Your task to perform on an android device: move an email to a new category in the gmail app Image 0: 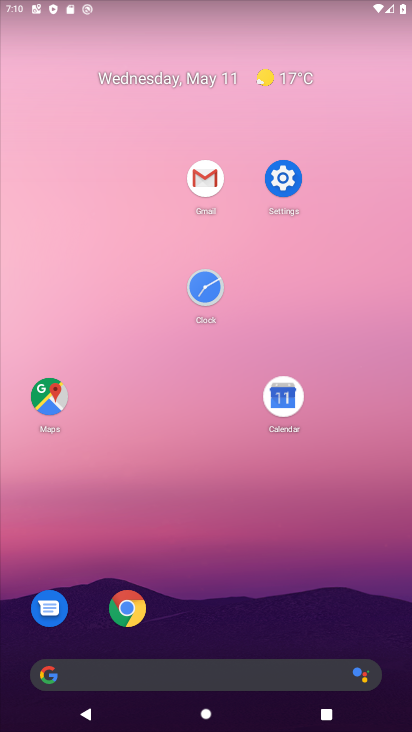
Step 0: click (193, 179)
Your task to perform on an android device: move an email to a new category in the gmail app Image 1: 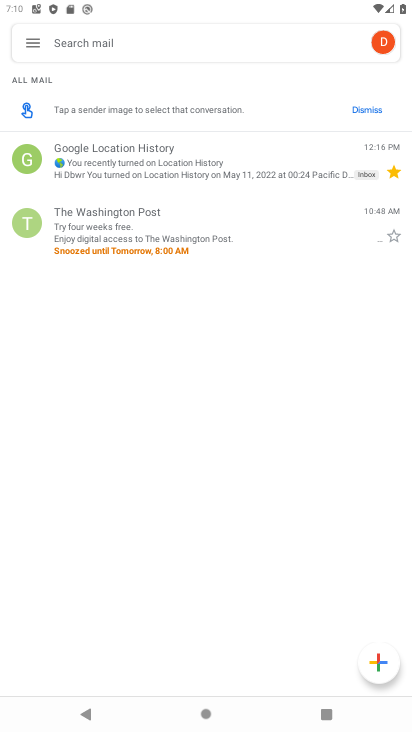
Step 1: click (259, 222)
Your task to perform on an android device: move an email to a new category in the gmail app Image 2: 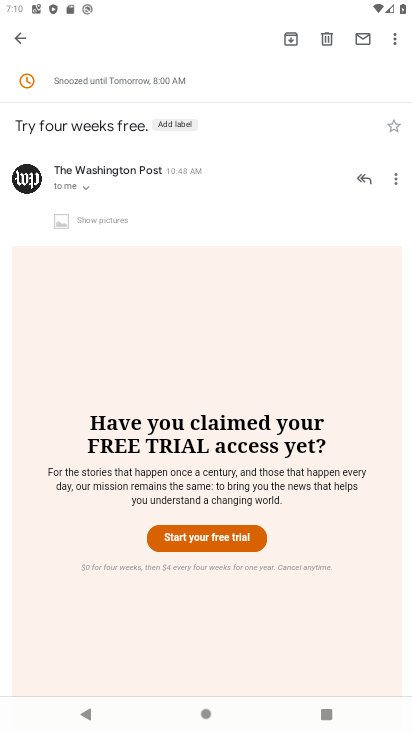
Step 2: click (399, 46)
Your task to perform on an android device: move an email to a new category in the gmail app Image 3: 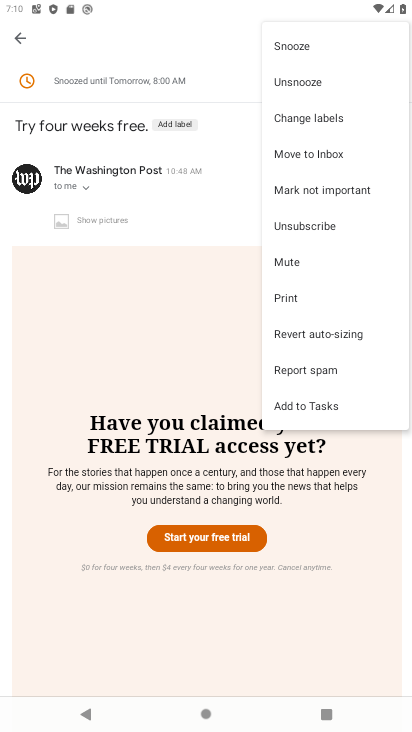
Step 3: click (340, 159)
Your task to perform on an android device: move an email to a new category in the gmail app Image 4: 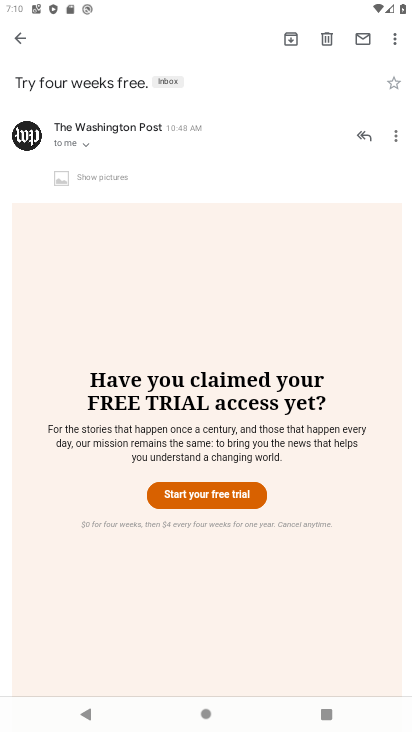
Step 4: task complete